Your task to perform on an android device: toggle notifications settings in the gmail app Image 0: 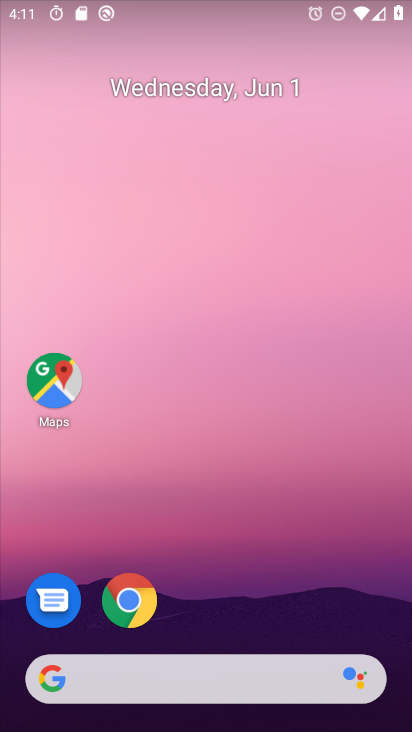
Step 0: drag from (187, 622) to (184, 269)
Your task to perform on an android device: toggle notifications settings in the gmail app Image 1: 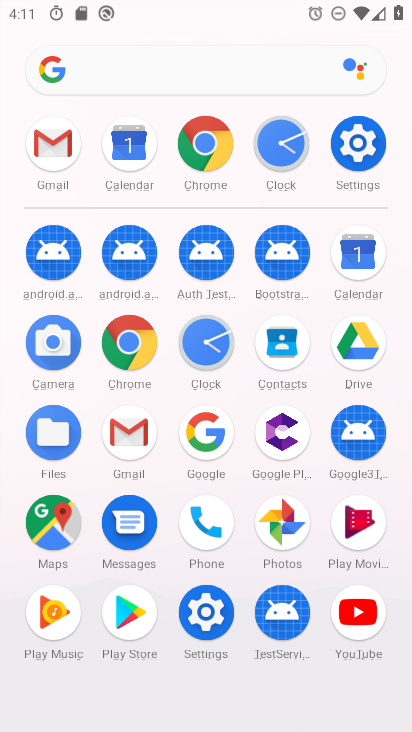
Step 1: click (125, 447)
Your task to perform on an android device: toggle notifications settings in the gmail app Image 2: 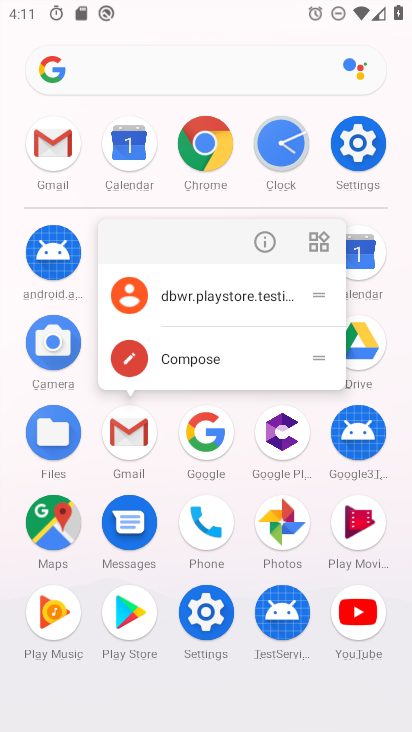
Step 2: click (127, 467)
Your task to perform on an android device: toggle notifications settings in the gmail app Image 3: 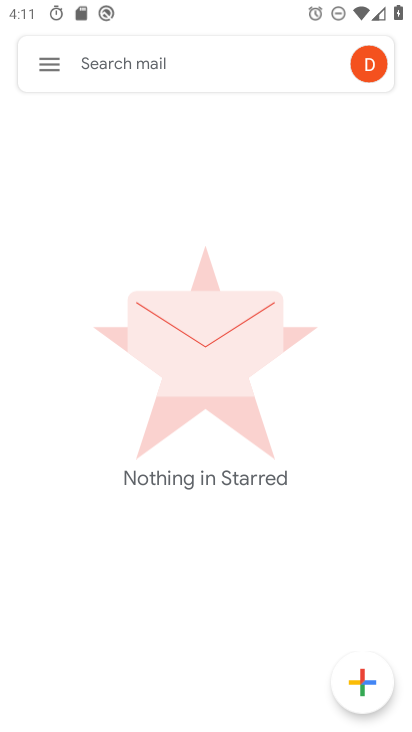
Step 3: click (49, 72)
Your task to perform on an android device: toggle notifications settings in the gmail app Image 4: 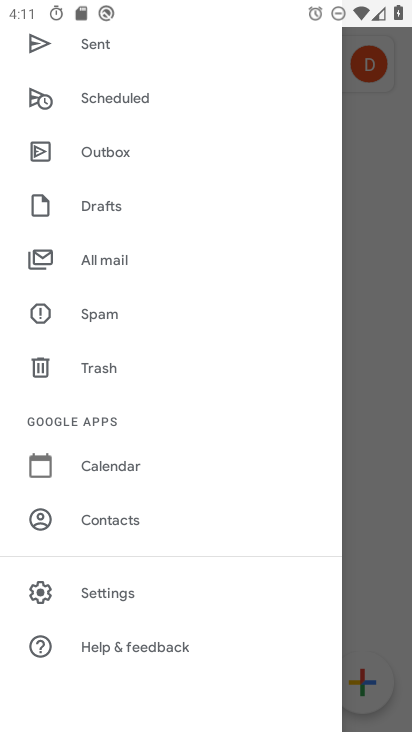
Step 4: click (121, 598)
Your task to perform on an android device: toggle notifications settings in the gmail app Image 5: 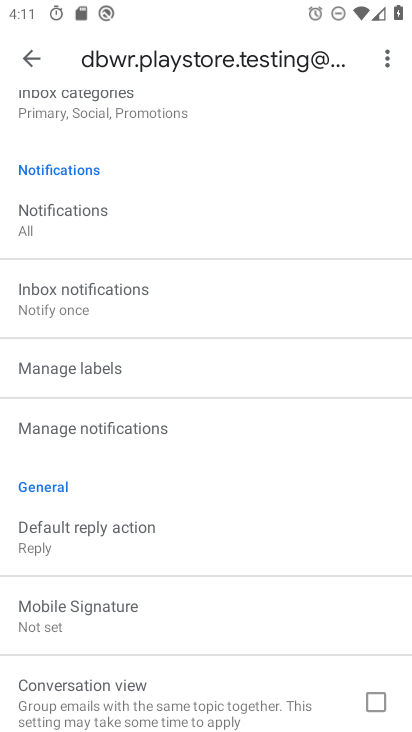
Step 5: click (86, 431)
Your task to perform on an android device: toggle notifications settings in the gmail app Image 6: 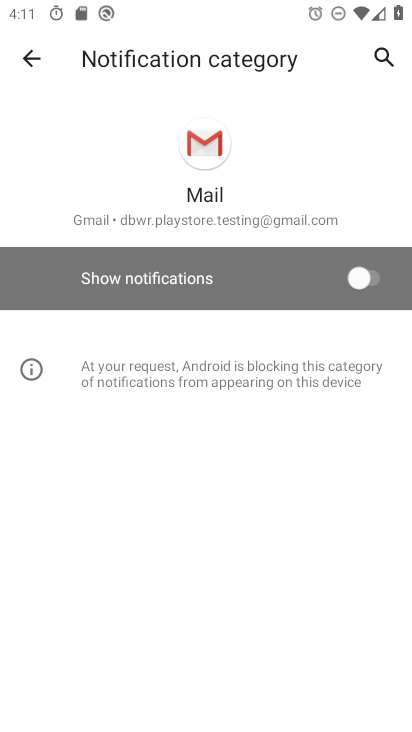
Step 6: click (373, 278)
Your task to perform on an android device: toggle notifications settings in the gmail app Image 7: 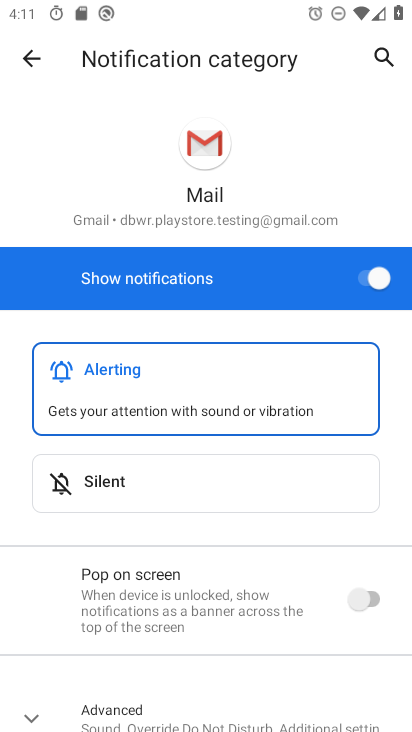
Step 7: task complete